Your task to perform on an android device: Open Yahoo.com Image 0: 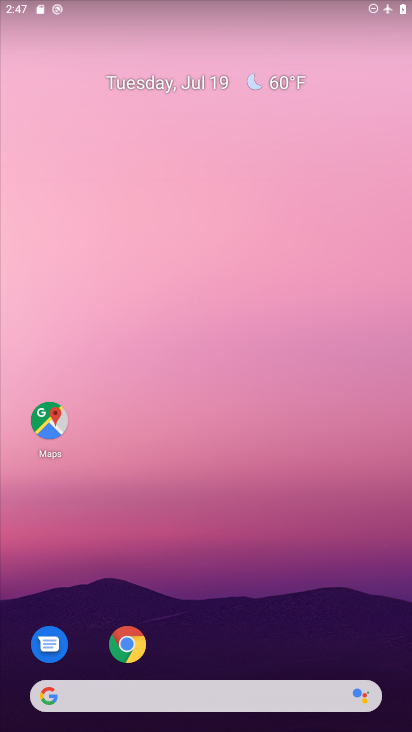
Step 0: drag from (226, 668) to (212, 51)
Your task to perform on an android device: Open Yahoo.com Image 1: 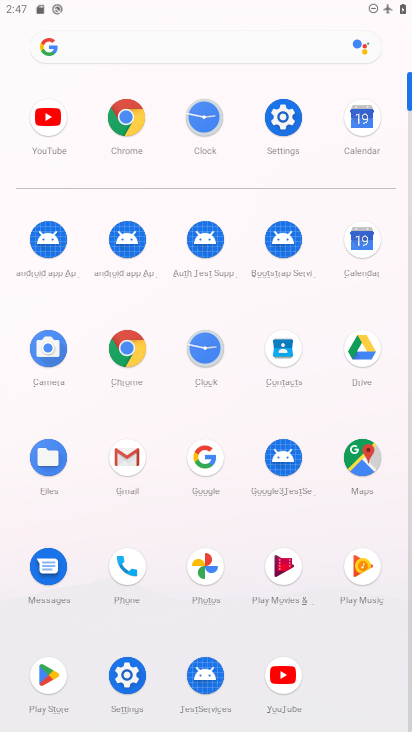
Step 1: click (132, 347)
Your task to perform on an android device: Open Yahoo.com Image 2: 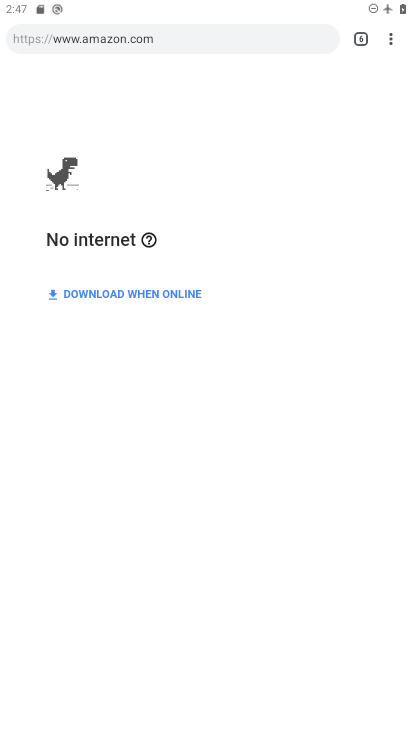
Step 2: press home button
Your task to perform on an android device: Open Yahoo.com Image 3: 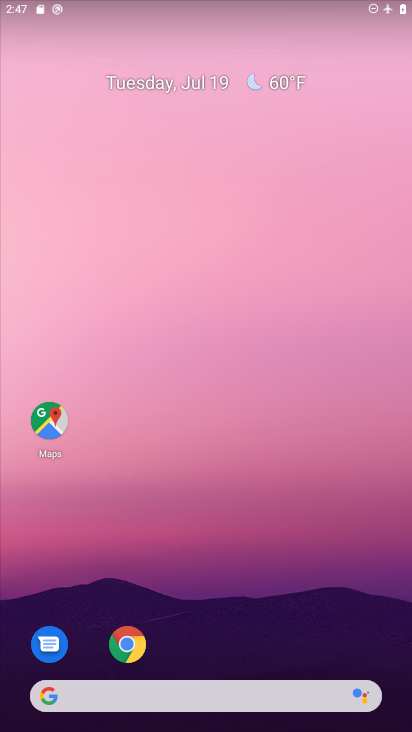
Step 3: drag from (220, 685) to (203, 165)
Your task to perform on an android device: Open Yahoo.com Image 4: 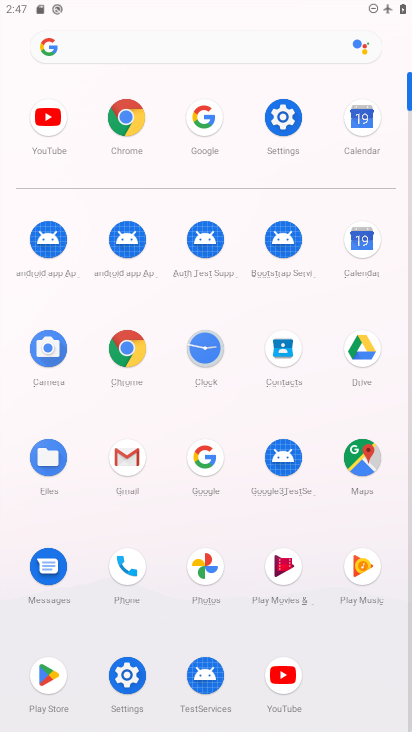
Step 4: click (120, 343)
Your task to perform on an android device: Open Yahoo.com Image 5: 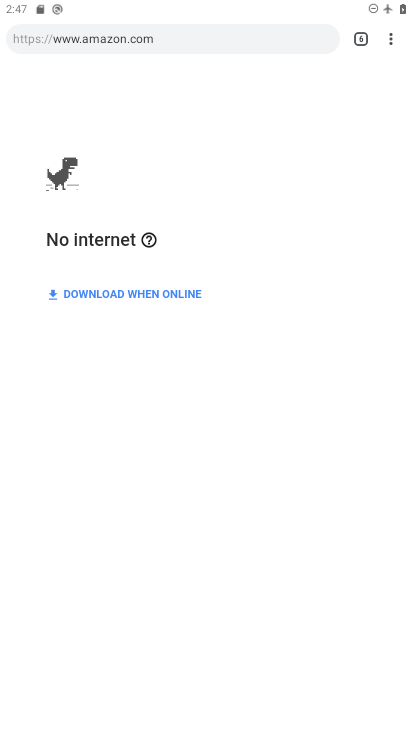
Step 5: click (365, 36)
Your task to perform on an android device: Open Yahoo.com Image 6: 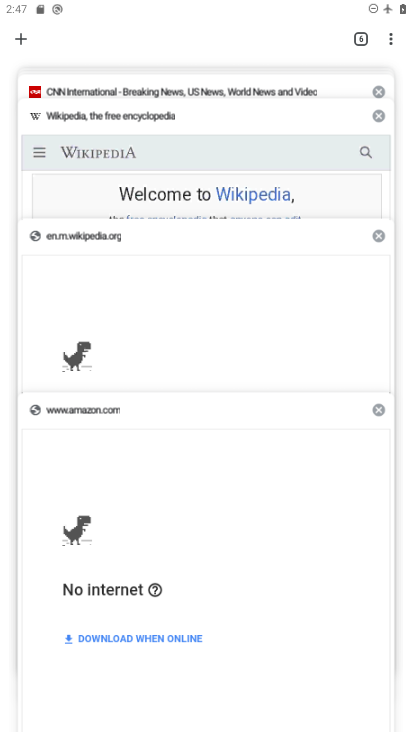
Step 6: click (24, 35)
Your task to perform on an android device: Open Yahoo.com Image 7: 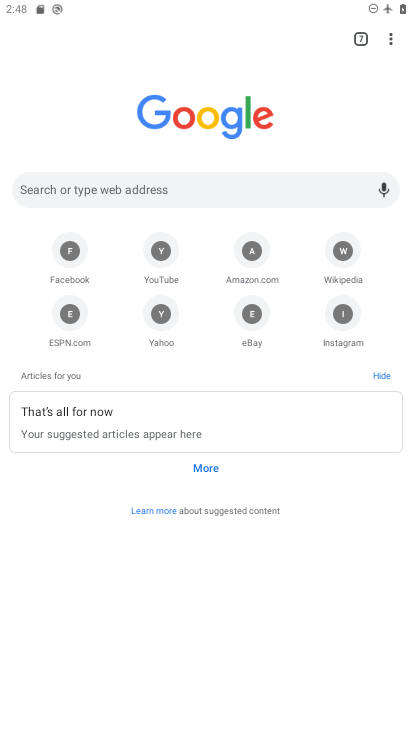
Step 7: click (160, 308)
Your task to perform on an android device: Open Yahoo.com Image 8: 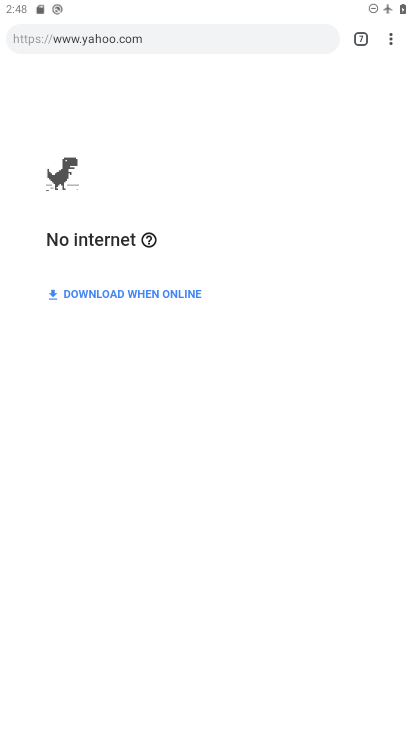
Step 8: task complete